Your task to perform on an android device: toggle show notifications on the lock screen Image 0: 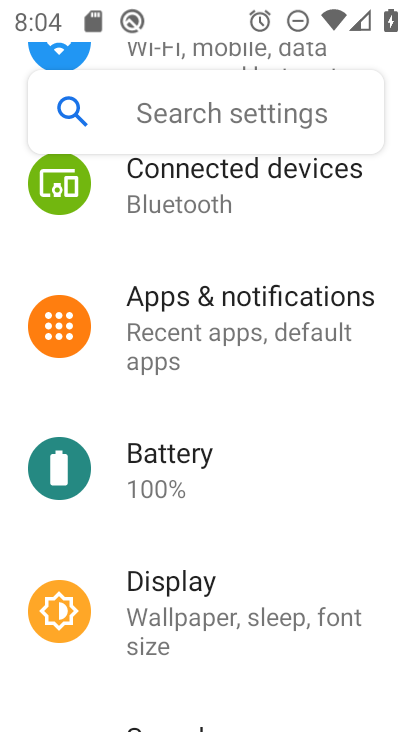
Step 0: press home button
Your task to perform on an android device: toggle show notifications on the lock screen Image 1: 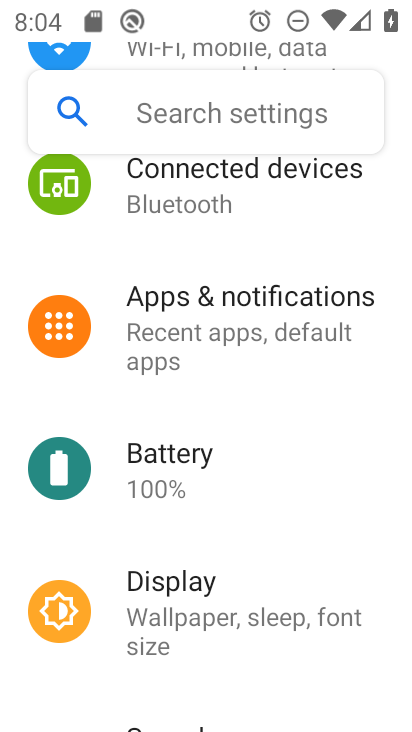
Step 1: press home button
Your task to perform on an android device: toggle show notifications on the lock screen Image 2: 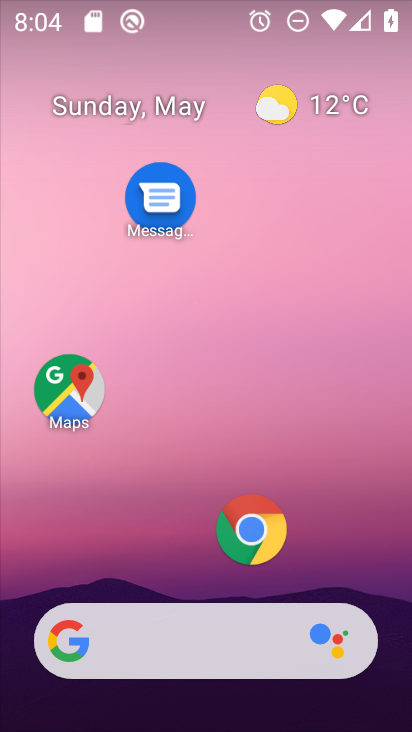
Step 2: drag from (201, 577) to (245, 109)
Your task to perform on an android device: toggle show notifications on the lock screen Image 3: 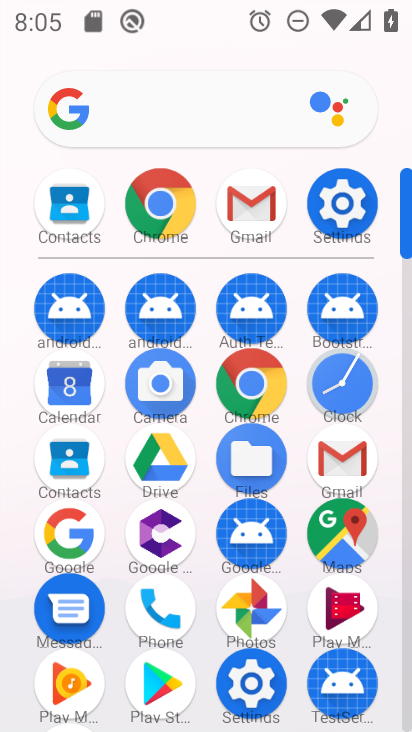
Step 3: click (338, 193)
Your task to perform on an android device: toggle show notifications on the lock screen Image 4: 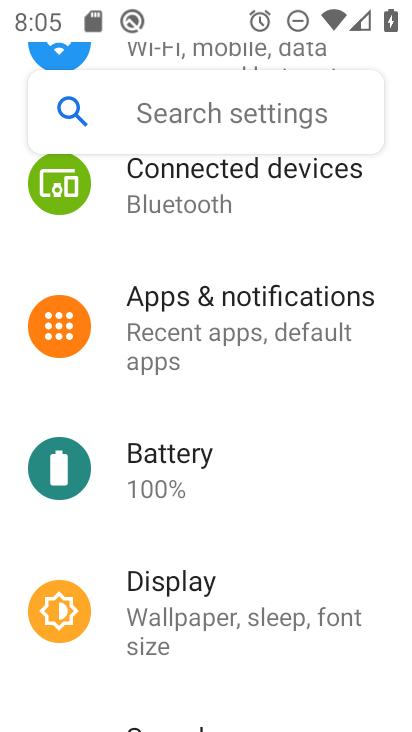
Step 4: click (193, 316)
Your task to perform on an android device: toggle show notifications on the lock screen Image 5: 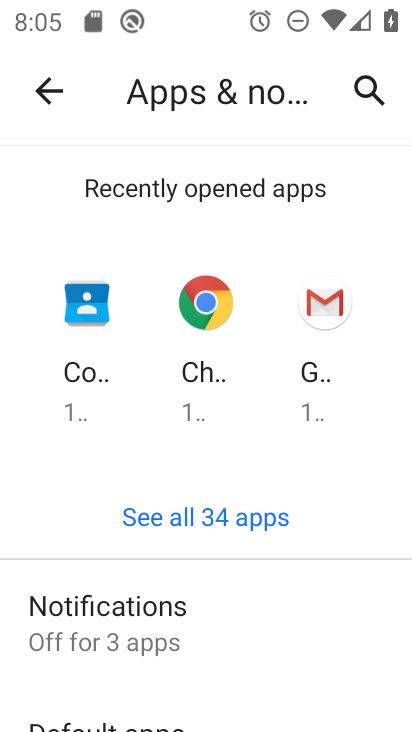
Step 5: click (183, 626)
Your task to perform on an android device: toggle show notifications on the lock screen Image 6: 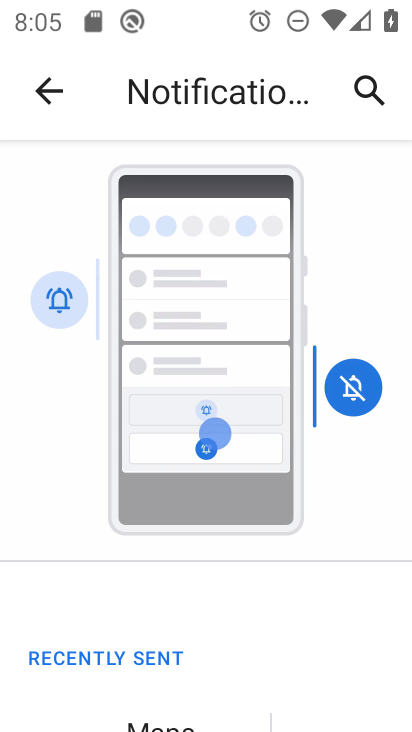
Step 6: drag from (223, 679) to (277, 191)
Your task to perform on an android device: toggle show notifications on the lock screen Image 7: 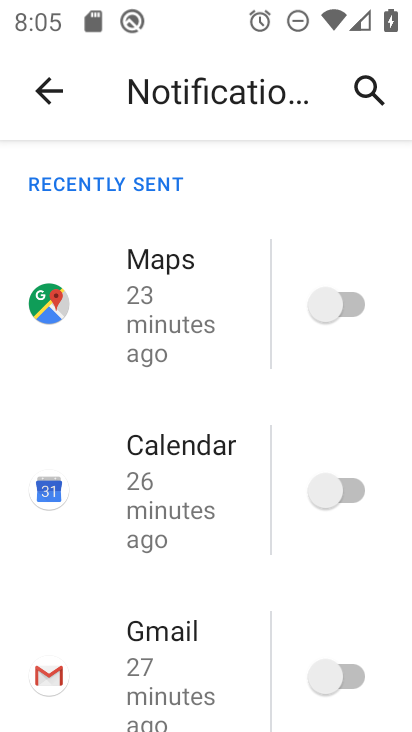
Step 7: drag from (243, 644) to (244, 162)
Your task to perform on an android device: toggle show notifications on the lock screen Image 8: 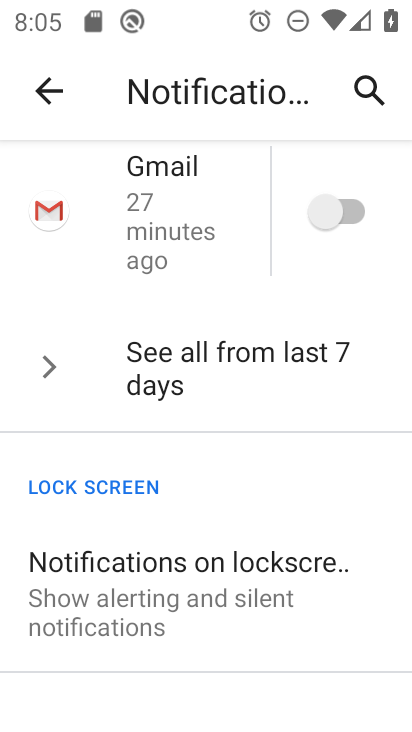
Step 8: click (215, 599)
Your task to perform on an android device: toggle show notifications on the lock screen Image 9: 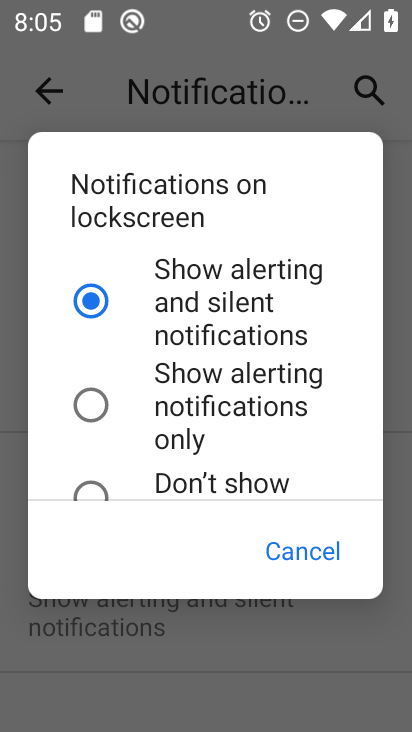
Step 9: click (92, 386)
Your task to perform on an android device: toggle show notifications on the lock screen Image 10: 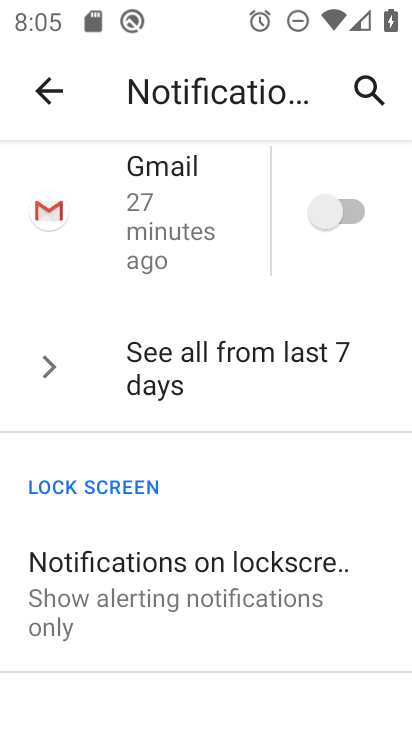
Step 10: task complete